Your task to perform on an android device: toggle data saver in the chrome app Image 0: 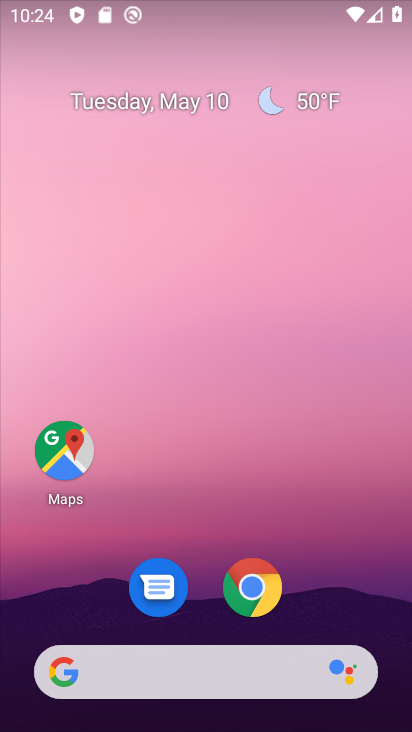
Step 0: drag from (199, 643) to (181, 65)
Your task to perform on an android device: toggle data saver in the chrome app Image 1: 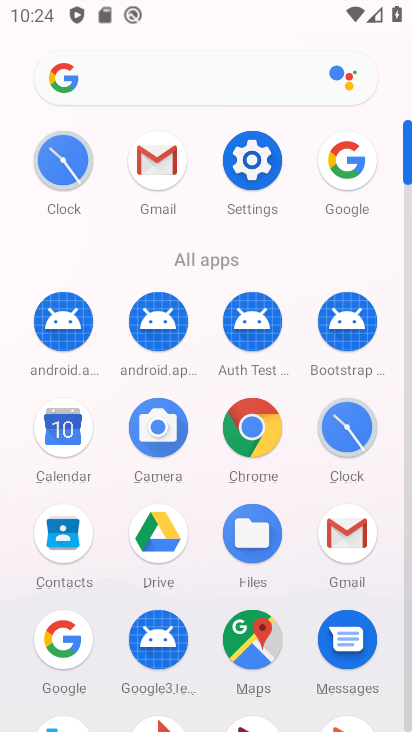
Step 1: click (243, 433)
Your task to perform on an android device: toggle data saver in the chrome app Image 2: 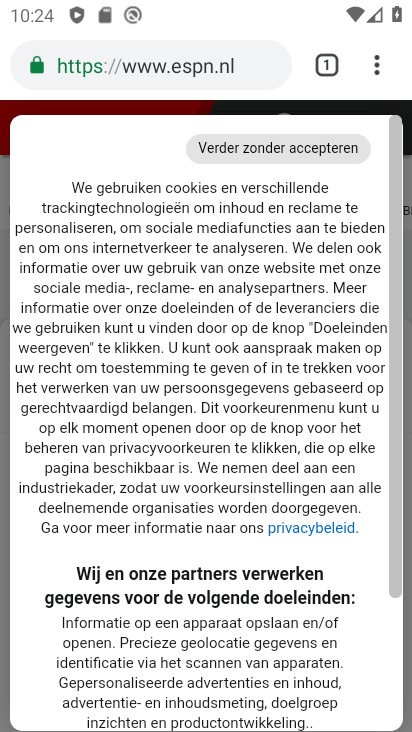
Step 2: click (372, 68)
Your task to perform on an android device: toggle data saver in the chrome app Image 3: 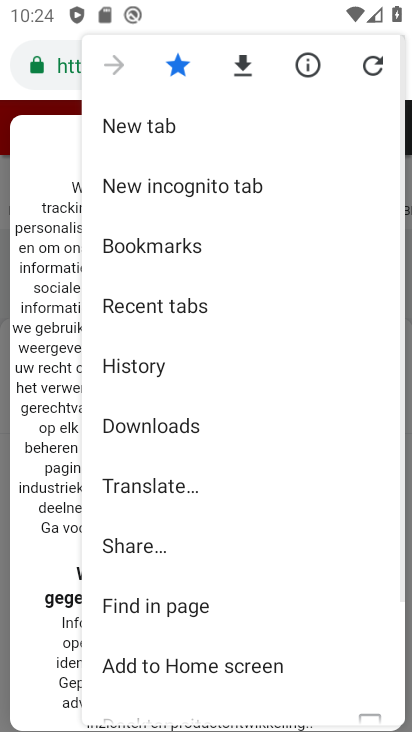
Step 3: drag from (240, 448) to (214, 118)
Your task to perform on an android device: toggle data saver in the chrome app Image 4: 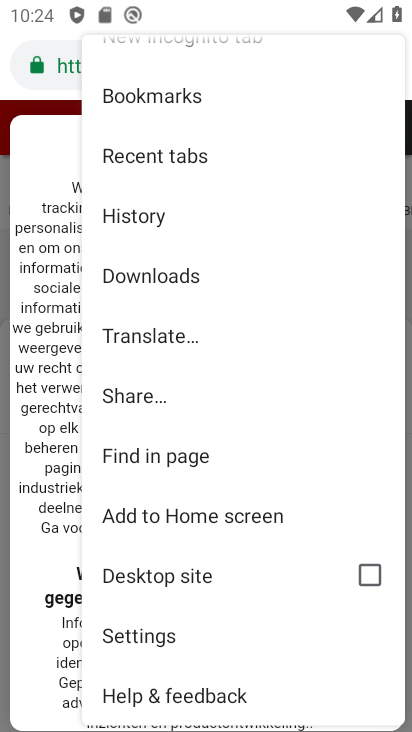
Step 4: click (139, 631)
Your task to perform on an android device: toggle data saver in the chrome app Image 5: 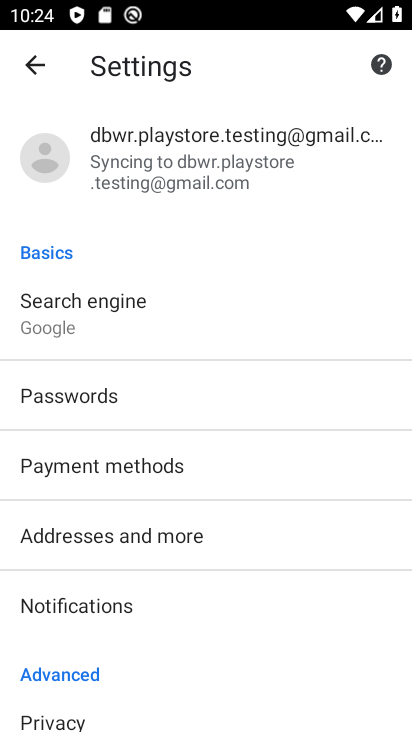
Step 5: drag from (85, 617) to (74, 143)
Your task to perform on an android device: toggle data saver in the chrome app Image 6: 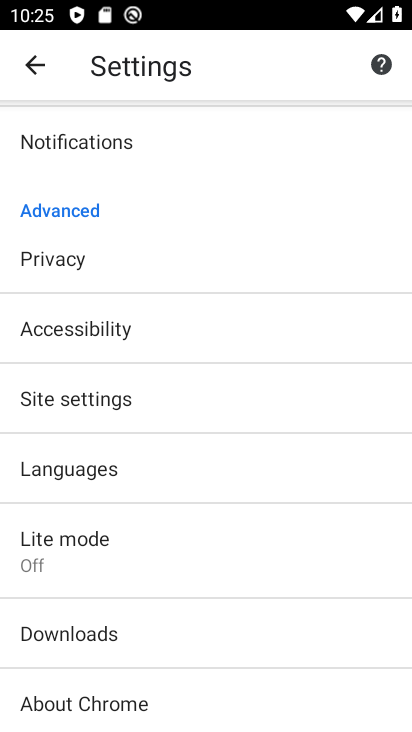
Step 6: click (38, 557)
Your task to perform on an android device: toggle data saver in the chrome app Image 7: 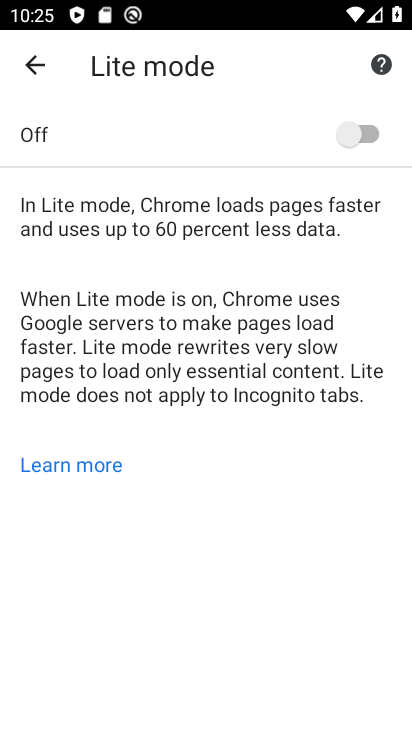
Step 7: click (345, 132)
Your task to perform on an android device: toggle data saver in the chrome app Image 8: 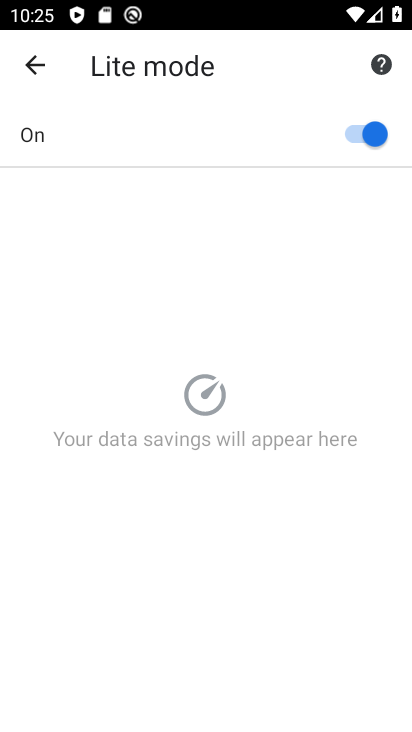
Step 8: task complete